Your task to perform on an android device: Open Google Image 0: 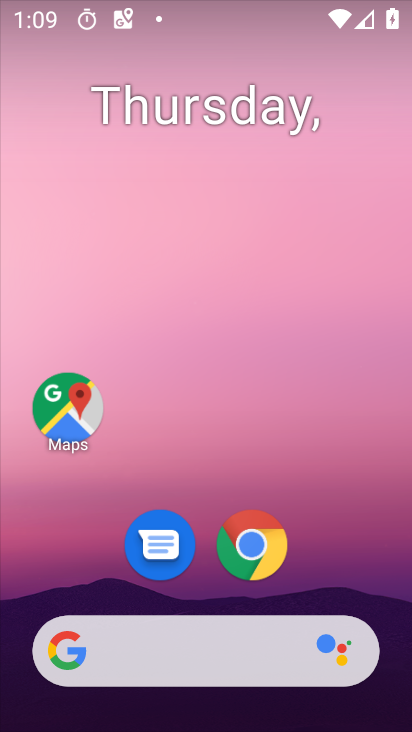
Step 0: drag from (284, 539) to (361, 31)
Your task to perform on an android device: Open Google Image 1: 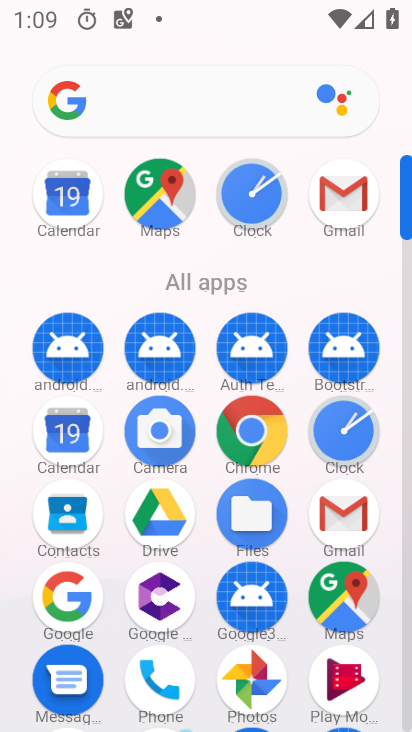
Step 1: click (258, 464)
Your task to perform on an android device: Open Google Image 2: 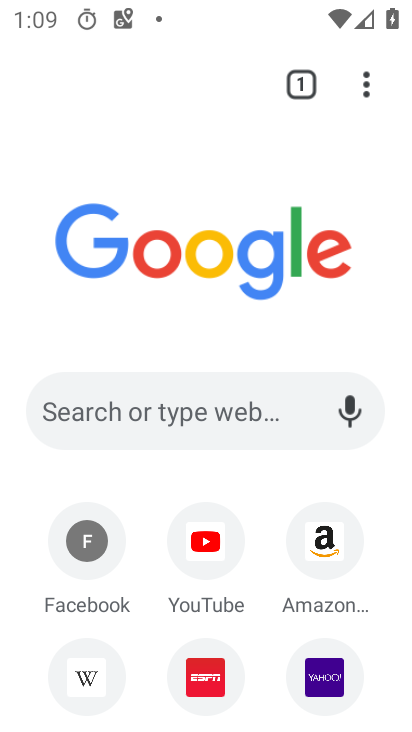
Step 2: task complete